Your task to perform on an android device: Check the weather Image 0: 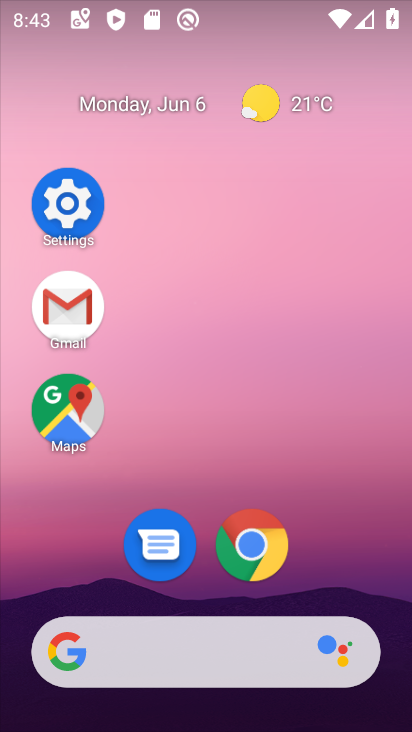
Step 0: drag from (341, 476) to (291, 154)
Your task to perform on an android device: Check the weather Image 1: 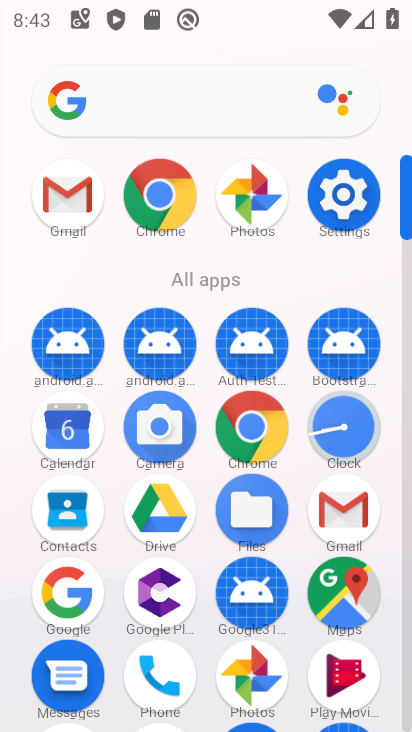
Step 1: drag from (80, 604) to (152, 355)
Your task to perform on an android device: Check the weather Image 2: 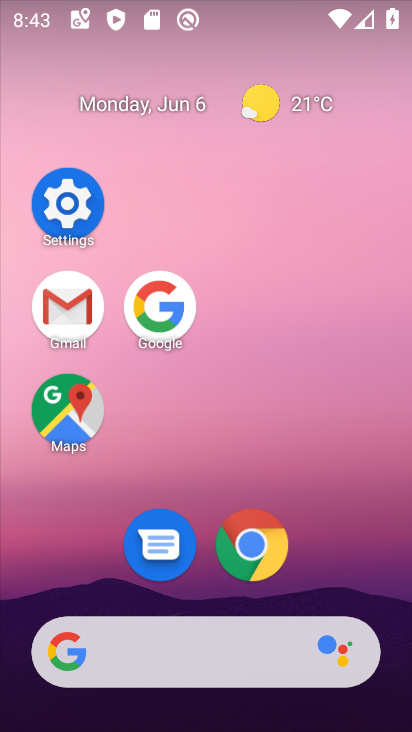
Step 2: click (169, 315)
Your task to perform on an android device: Check the weather Image 3: 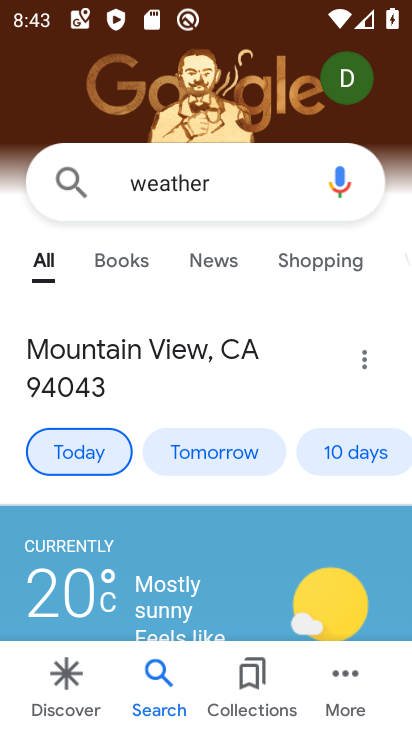
Step 3: task complete